Your task to perform on an android device: turn notification dots on Image 0: 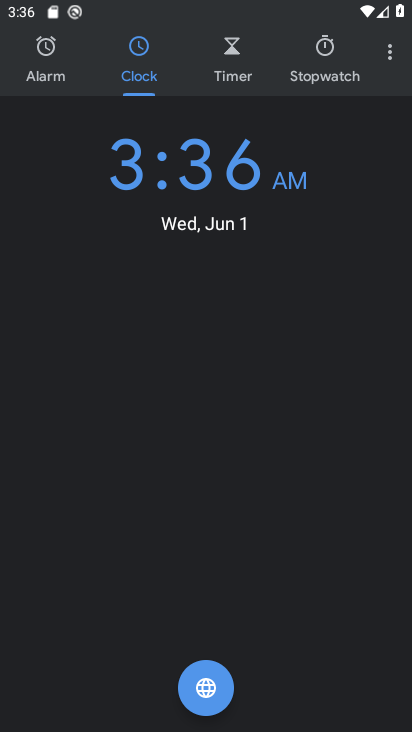
Step 0: press home button
Your task to perform on an android device: turn notification dots on Image 1: 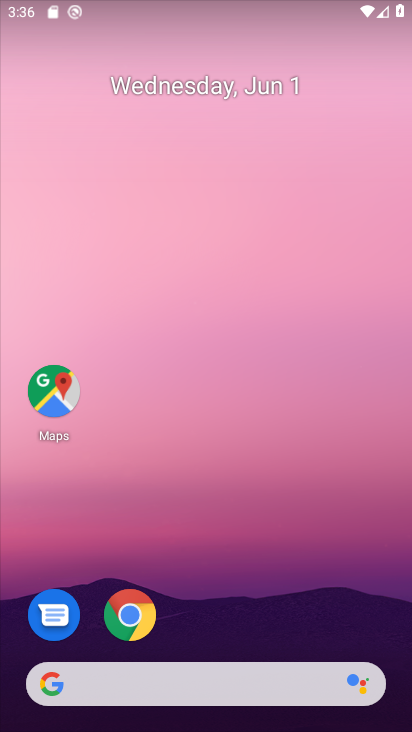
Step 1: drag from (243, 580) to (222, 94)
Your task to perform on an android device: turn notification dots on Image 2: 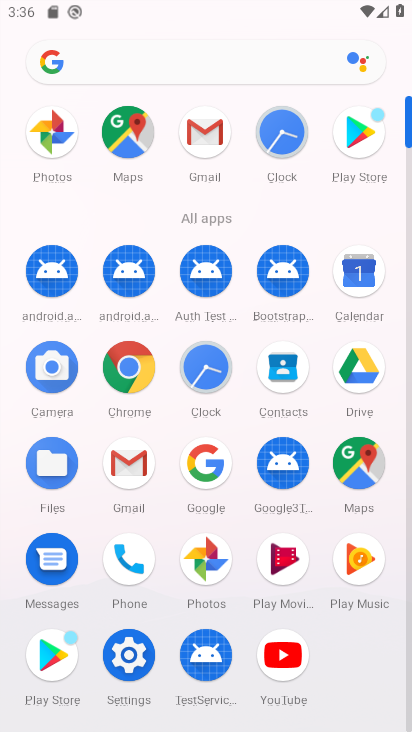
Step 2: click (134, 643)
Your task to perform on an android device: turn notification dots on Image 3: 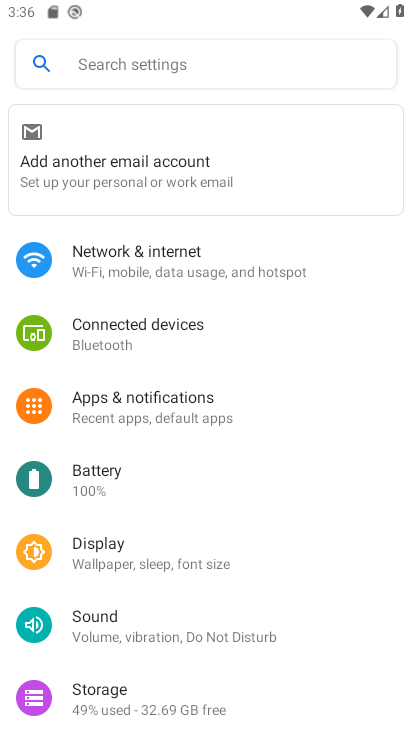
Step 3: click (171, 417)
Your task to perform on an android device: turn notification dots on Image 4: 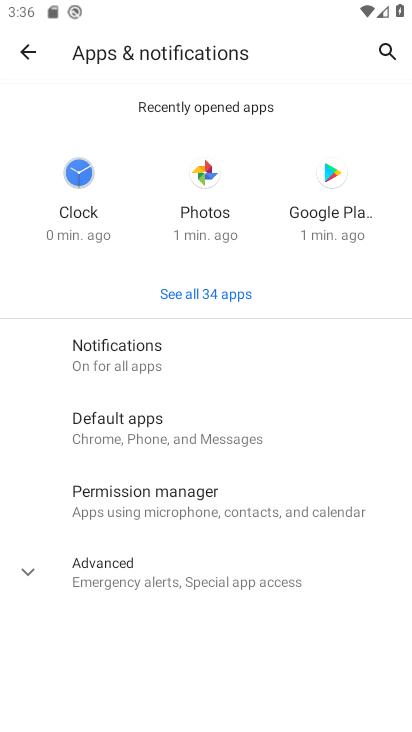
Step 4: click (147, 357)
Your task to perform on an android device: turn notification dots on Image 5: 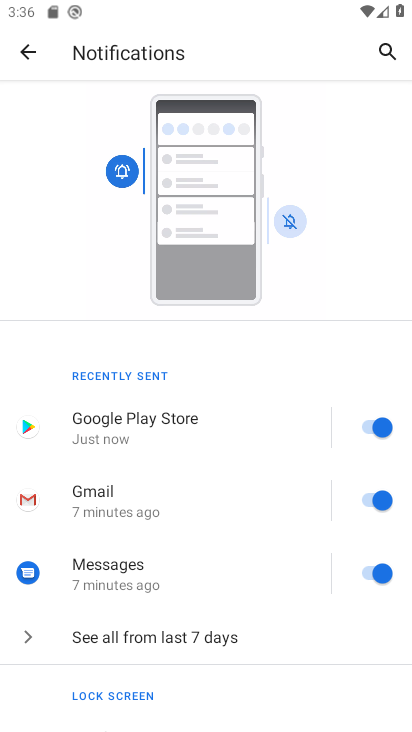
Step 5: drag from (216, 570) to (236, 166)
Your task to perform on an android device: turn notification dots on Image 6: 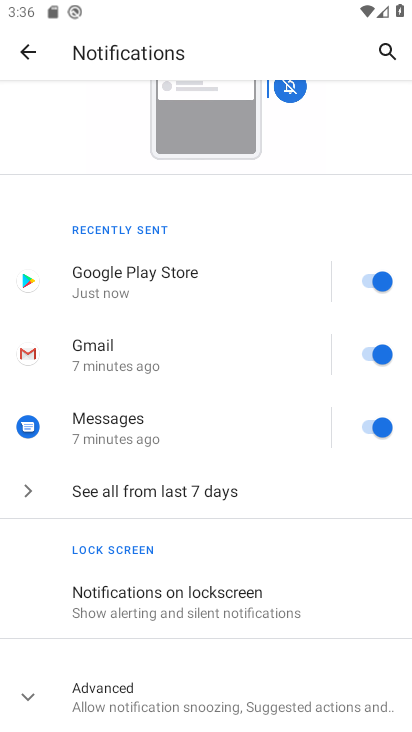
Step 6: click (167, 691)
Your task to perform on an android device: turn notification dots on Image 7: 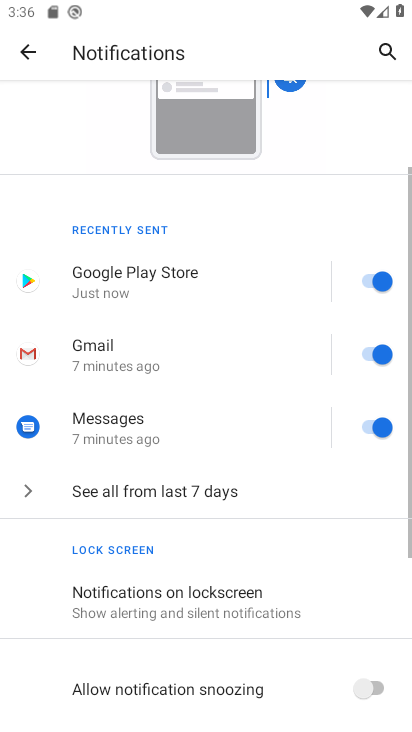
Step 7: task complete